Your task to perform on an android device: turn on data saver in the chrome app Image 0: 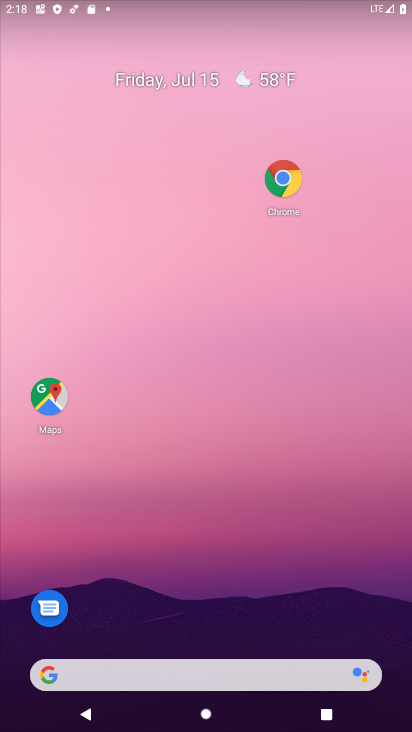
Step 0: drag from (177, 624) to (186, 65)
Your task to perform on an android device: turn on data saver in the chrome app Image 1: 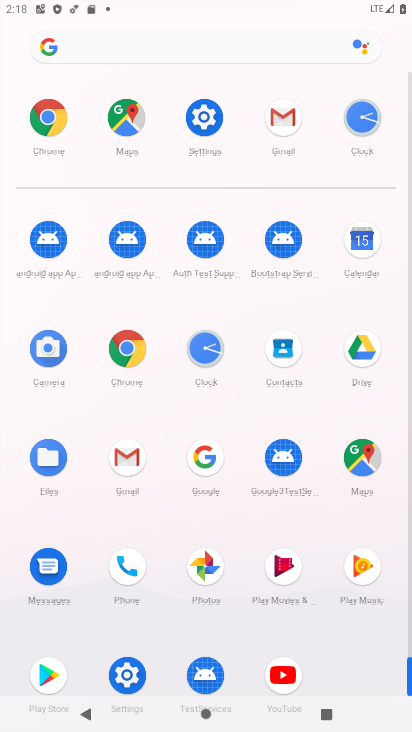
Step 1: click (126, 346)
Your task to perform on an android device: turn on data saver in the chrome app Image 2: 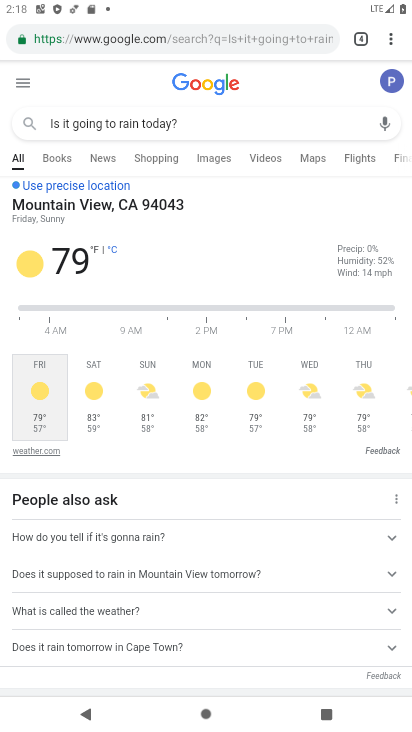
Step 2: drag from (390, 31) to (264, 422)
Your task to perform on an android device: turn on data saver in the chrome app Image 3: 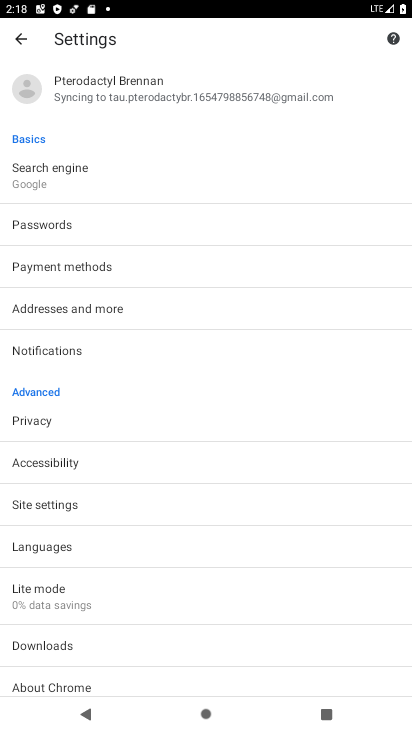
Step 3: drag from (145, 623) to (157, 347)
Your task to perform on an android device: turn on data saver in the chrome app Image 4: 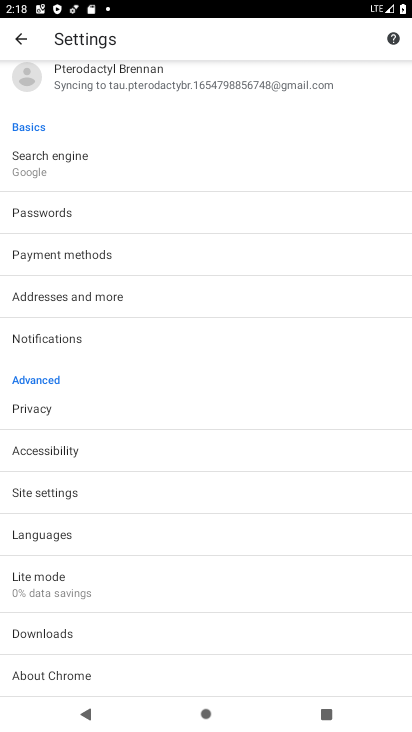
Step 4: click (37, 581)
Your task to perform on an android device: turn on data saver in the chrome app Image 5: 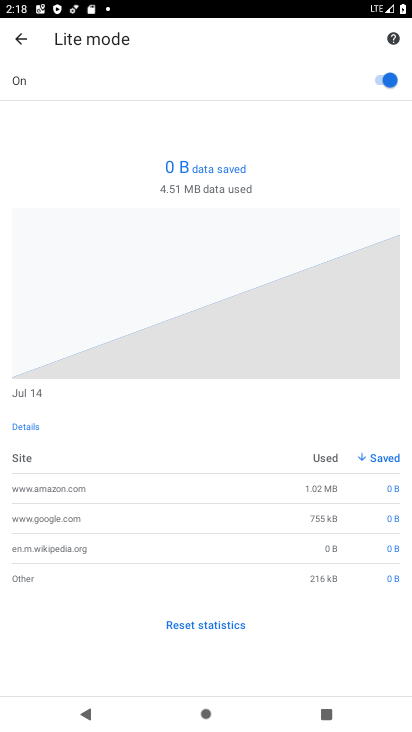
Step 5: task complete